Your task to perform on an android device: Open Chrome and go to the settings page Image 0: 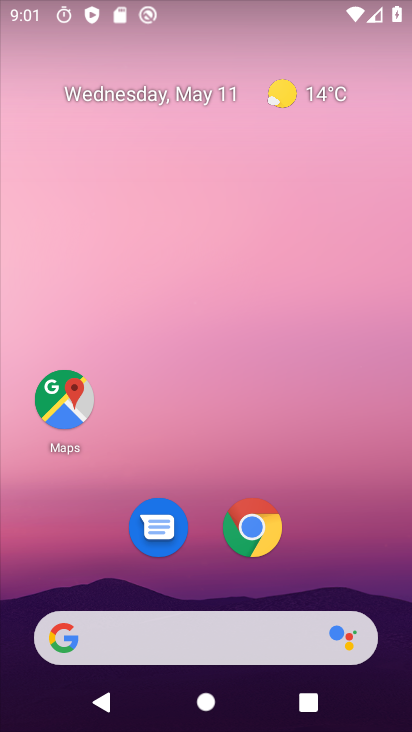
Step 0: drag from (300, 628) to (299, 249)
Your task to perform on an android device: Open Chrome and go to the settings page Image 1: 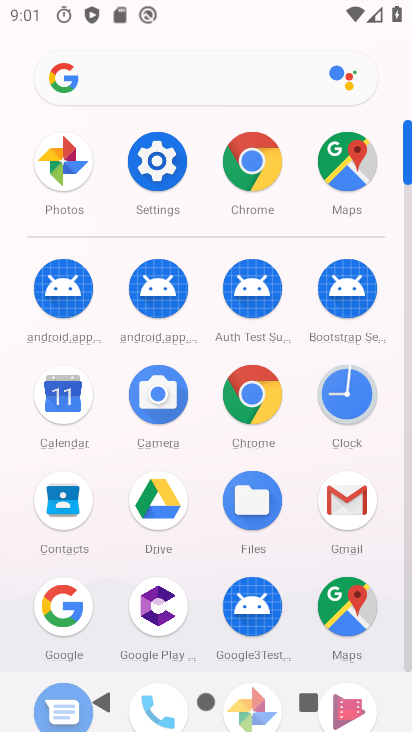
Step 1: click (255, 177)
Your task to perform on an android device: Open Chrome and go to the settings page Image 2: 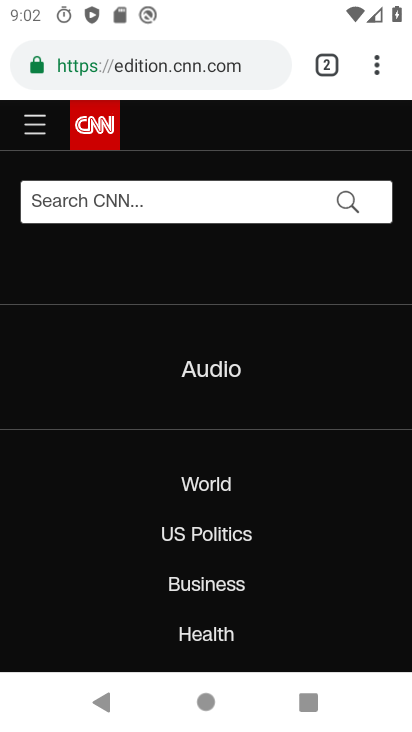
Step 2: click (377, 60)
Your task to perform on an android device: Open Chrome and go to the settings page Image 3: 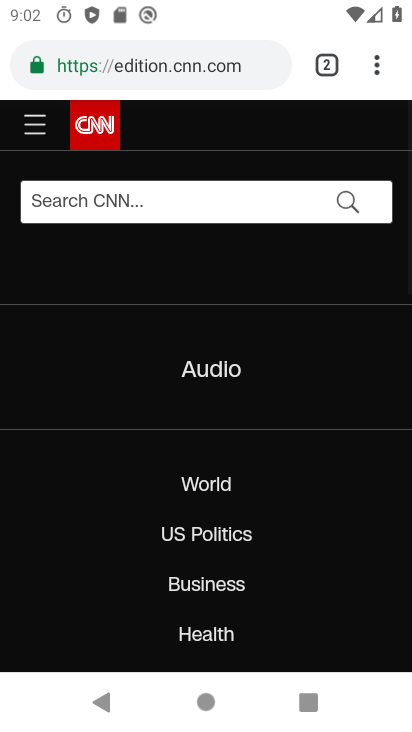
Step 3: click (377, 60)
Your task to perform on an android device: Open Chrome and go to the settings page Image 4: 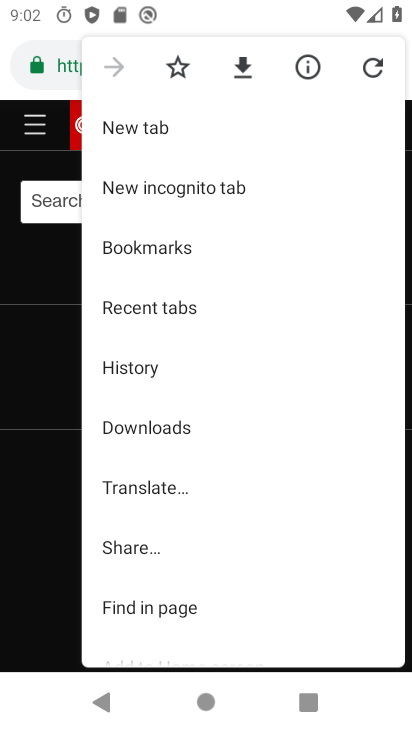
Step 4: drag from (229, 534) to (220, 64)
Your task to perform on an android device: Open Chrome and go to the settings page Image 5: 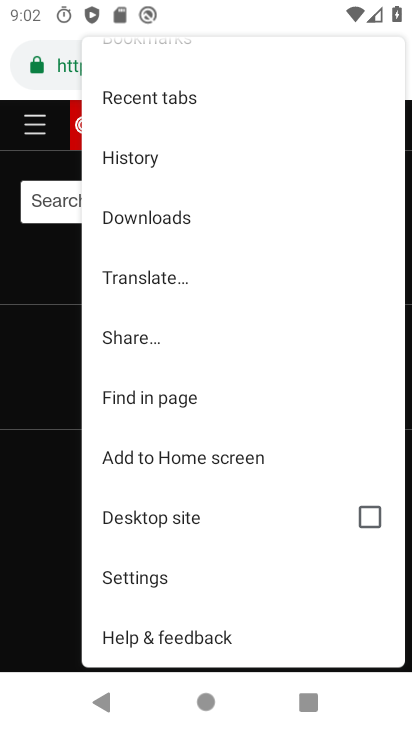
Step 5: click (150, 582)
Your task to perform on an android device: Open Chrome and go to the settings page Image 6: 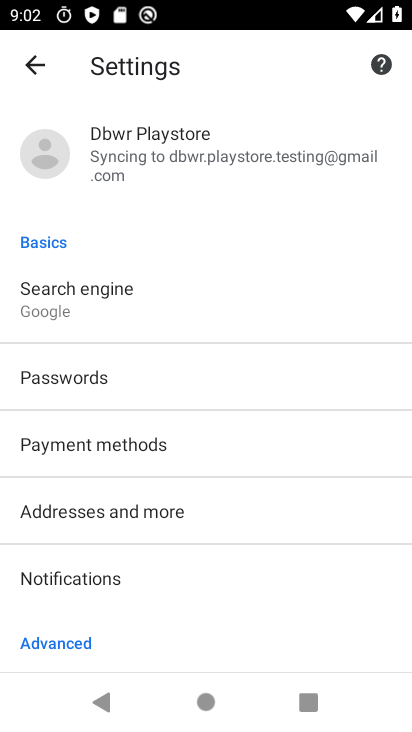
Step 6: task complete